Your task to perform on an android device: move an email to a new category in the gmail app Image 0: 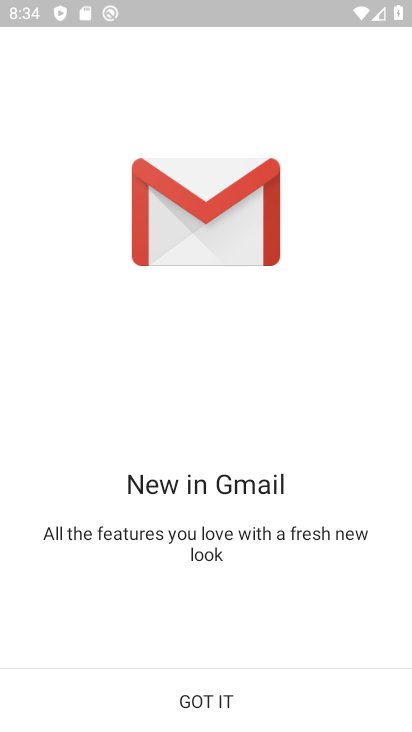
Step 0: click (200, 692)
Your task to perform on an android device: move an email to a new category in the gmail app Image 1: 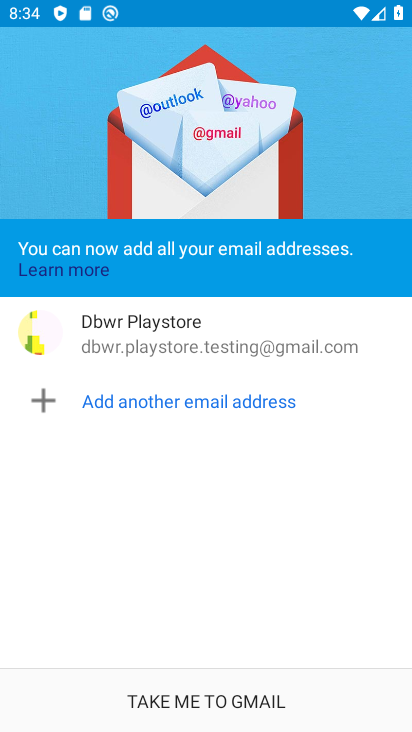
Step 1: click (258, 690)
Your task to perform on an android device: move an email to a new category in the gmail app Image 2: 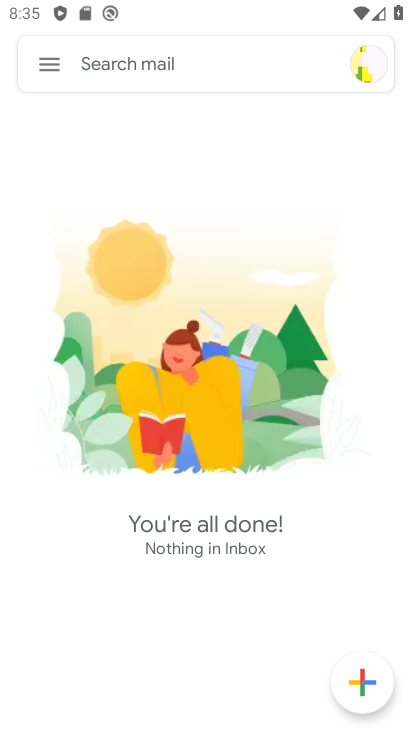
Step 2: task complete